Your task to perform on an android device: Open internet settings Image 0: 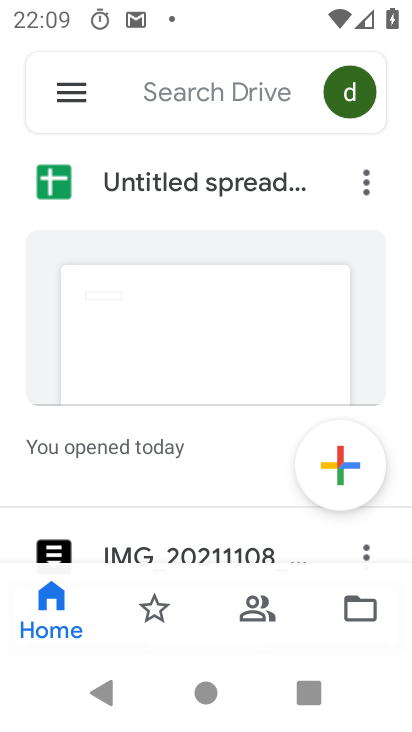
Step 0: press home button
Your task to perform on an android device: Open internet settings Image 1: 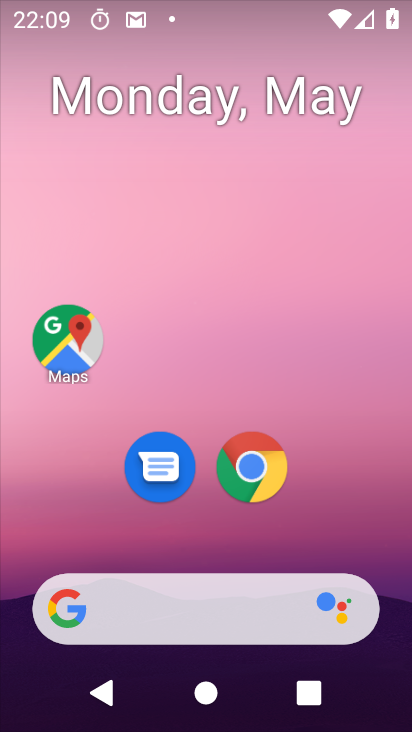
Step 1: drag from (246, 646) to (259, 274)
Your task to perform on an android device: Open internet settings Image 2: 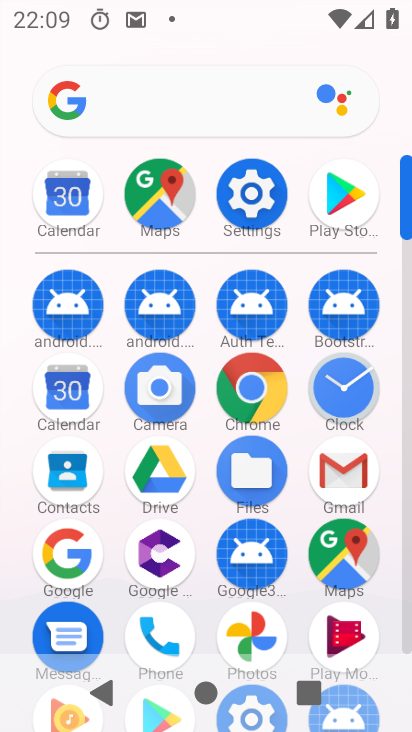
Step 2: click (245, 210)
Your task to perform on an android device: Open internet settings Image 3: 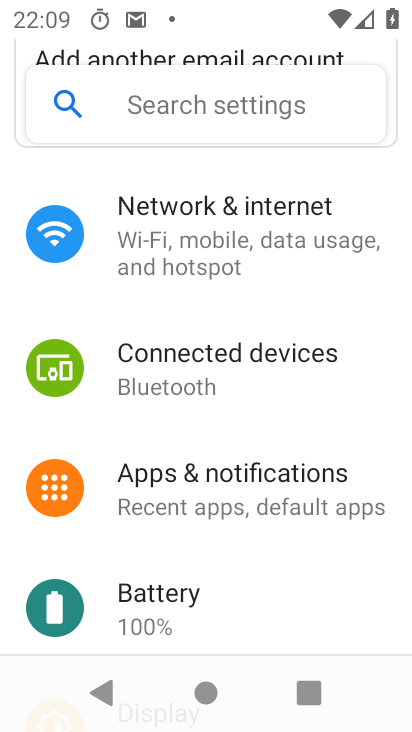
Step 3: click (198, 217)
Your task to perform on an android device: Open internet settings Image 4: 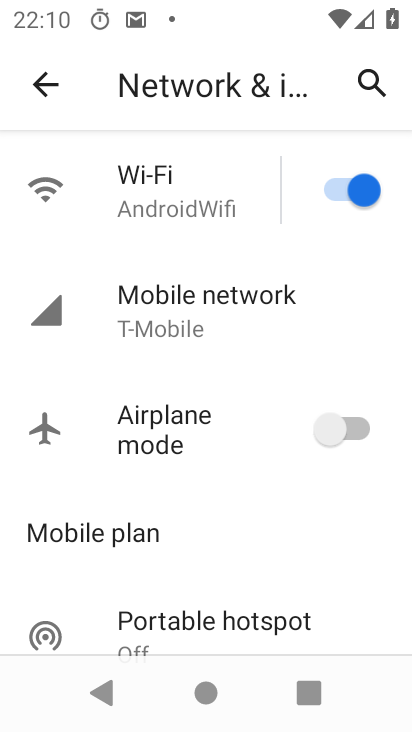
Step 4: task complete